Your task to perform on an android device: Open the contacts Image 0: 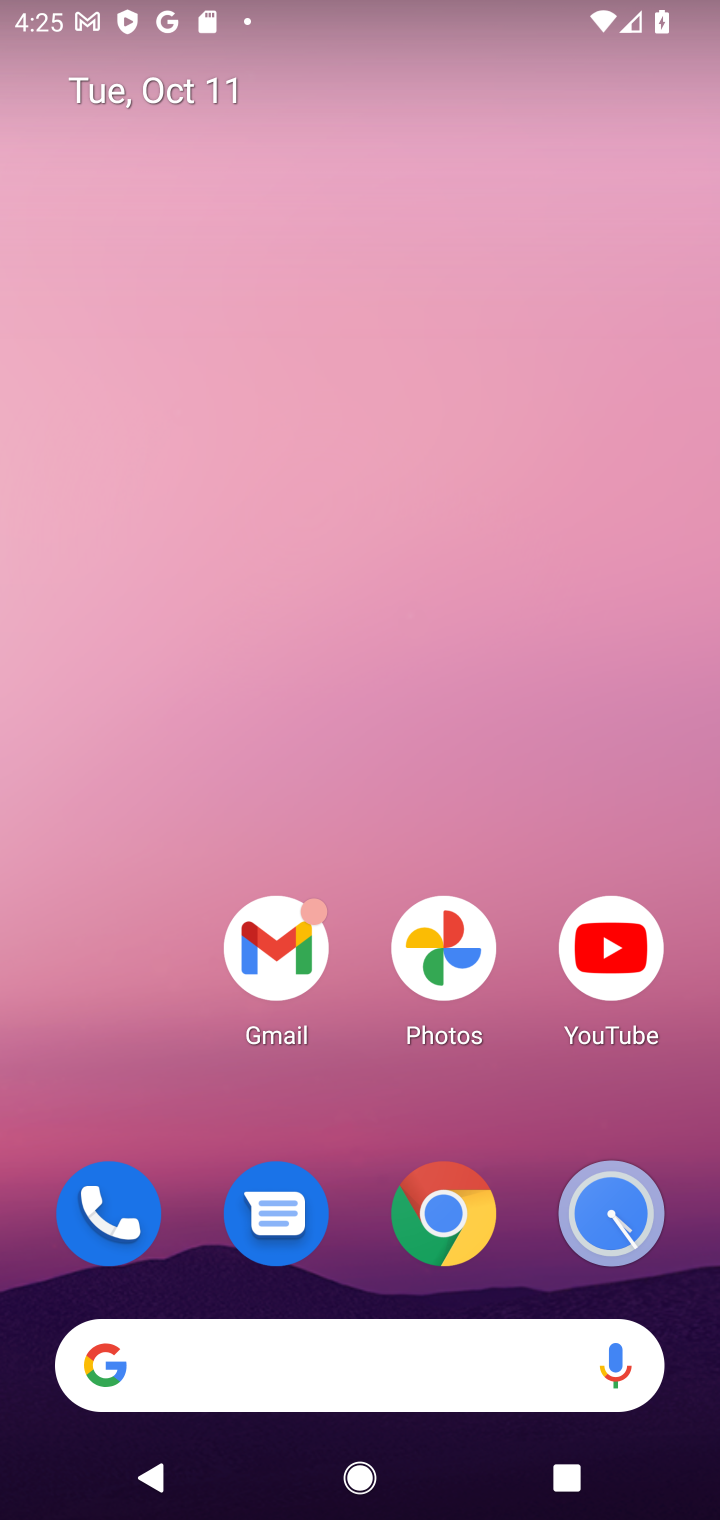
Step 0: drag from (540, 1164) to (506, 93)
Your task to perform on an android device: Open the contacts Image 1: 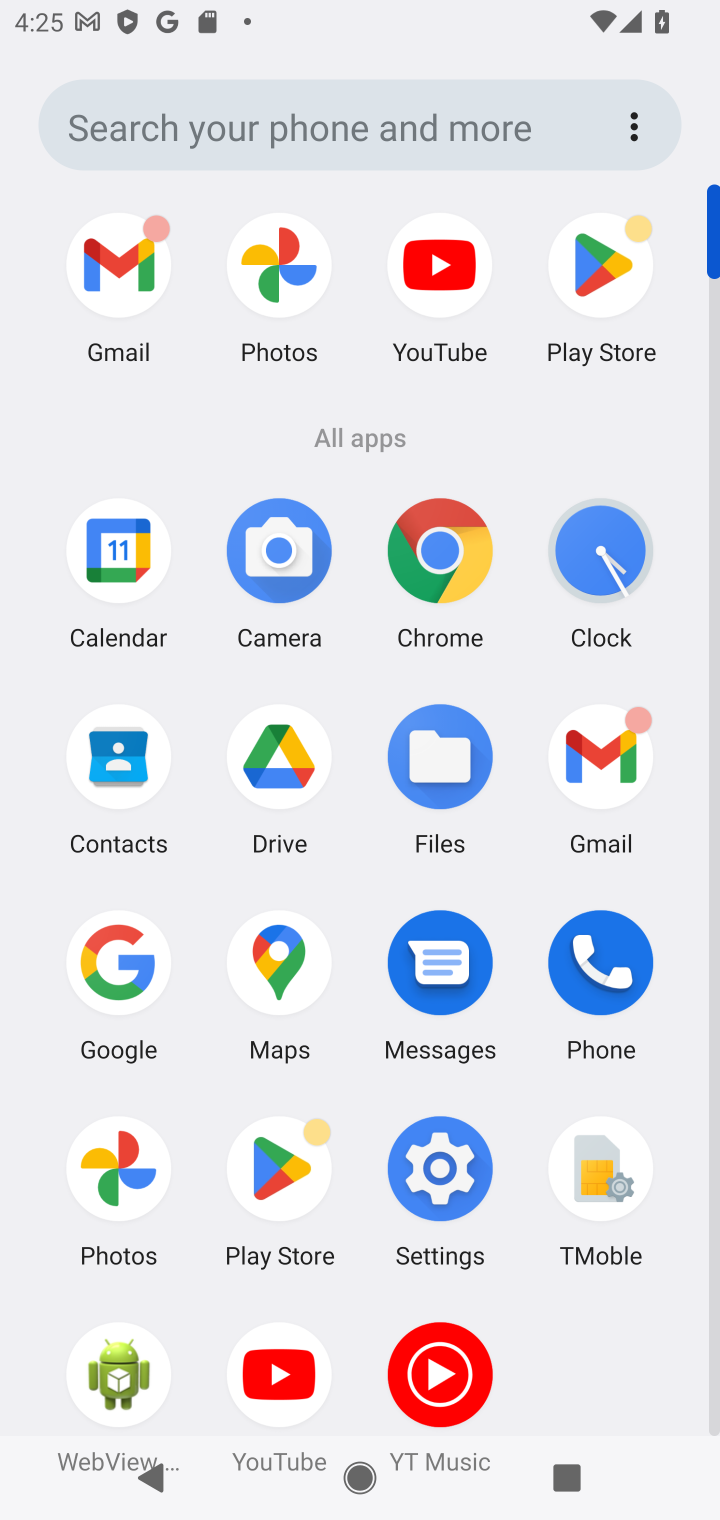
Step 1: click (111, 774)
Your task to perform on an android device: Open the contacts Image 2: 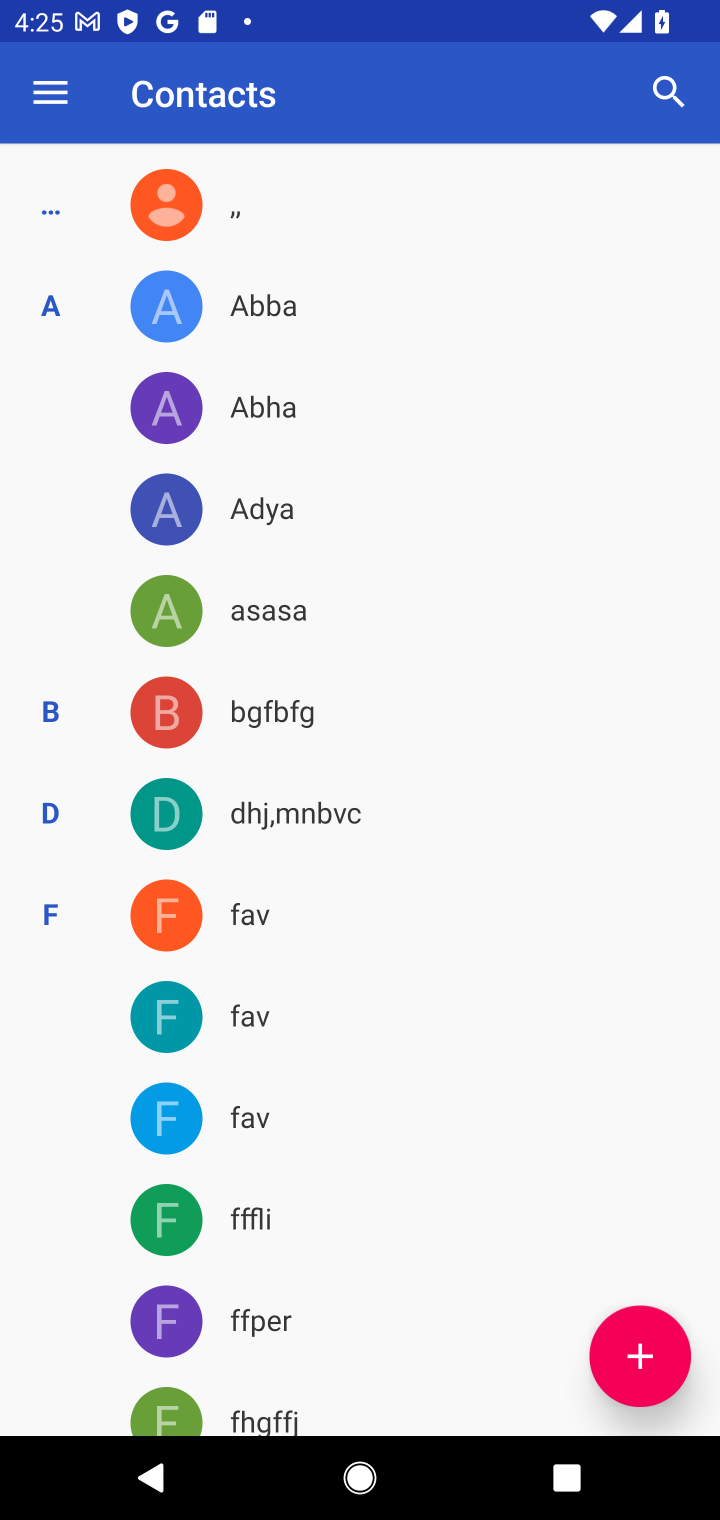
Step 2: task complete